Your task to perform on an android device: check battery use Image 0: 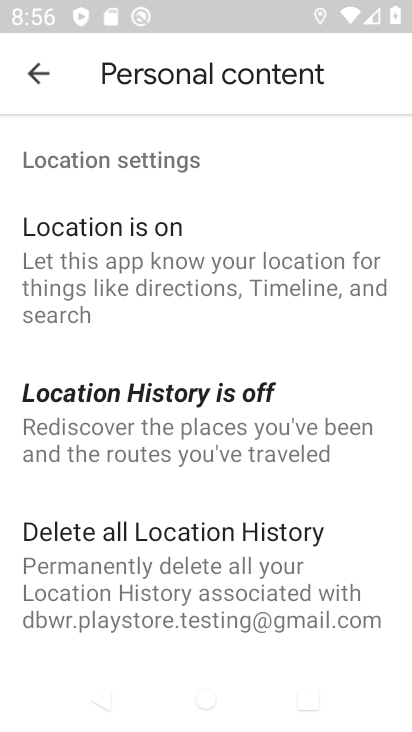
Step 0: press home button
Your task to perform on an android device: check battery use Image 1: 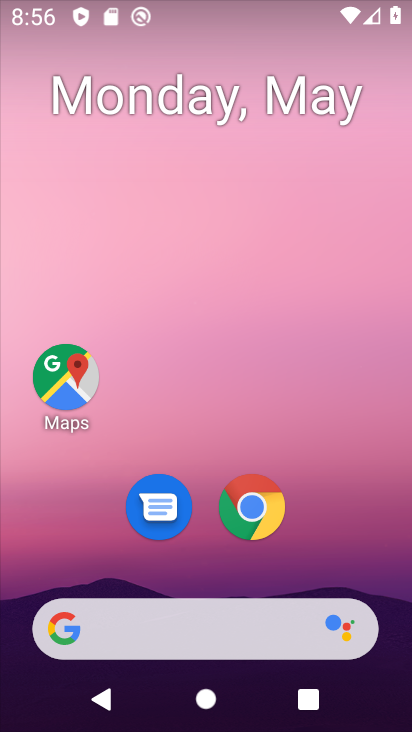
Step 1: drag from (226, 581) to (219, 2)
Your task to perform on an android device: check battery use Image 2: 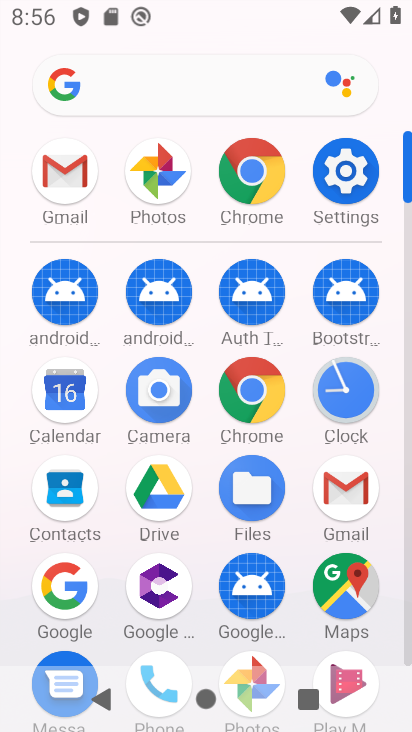
Step 2: click (343, 193)
Your task to perform on an android device: check battery use Image 3: 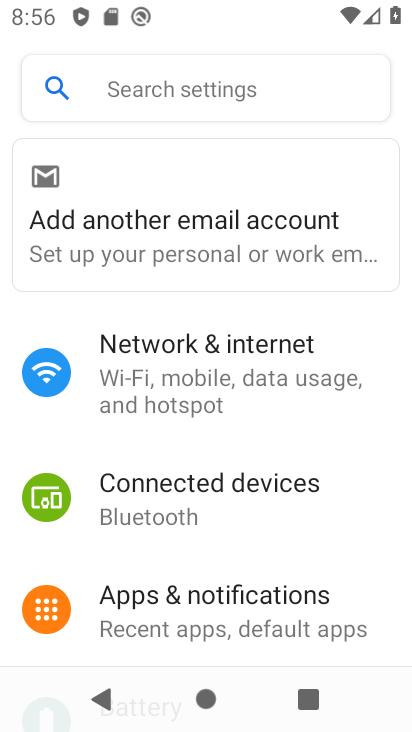
Step 3: drag from (218, 537) to (337, 111)
Your task to perform on an android device: check battery use Image 4: 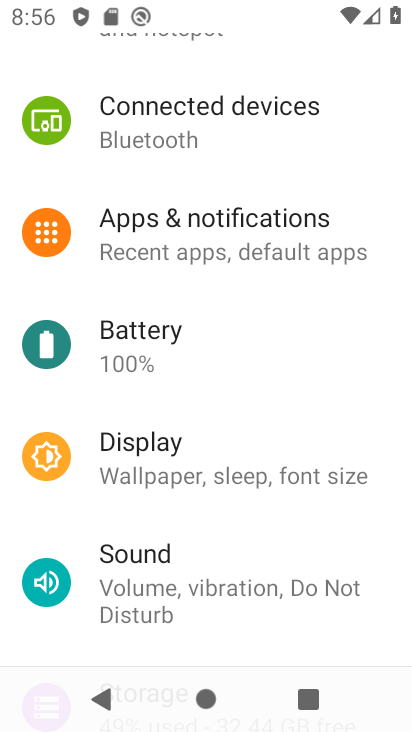
Step 4: click (155, 349)
Your task to perform on an android device: check battery use Image 5: 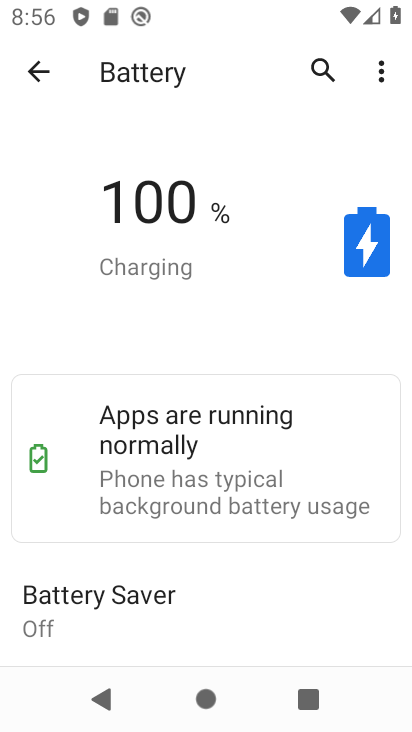
Step 5: click (379, 78)
Your task to perform on an android device: check battery use Image 6: 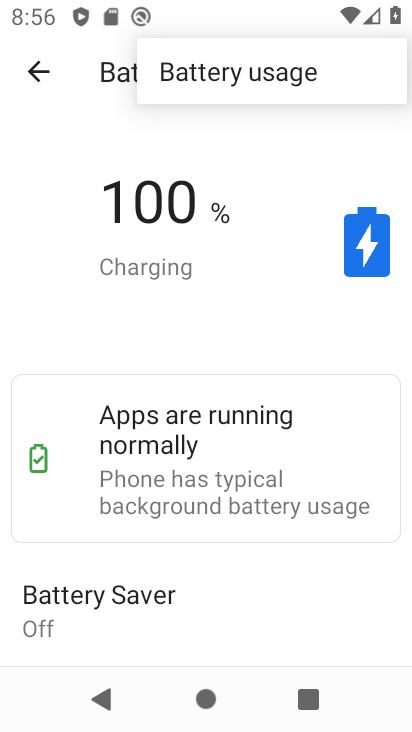
Step 6: click (307, 75)
Your task to perform on an android device: check battery use Image 7: 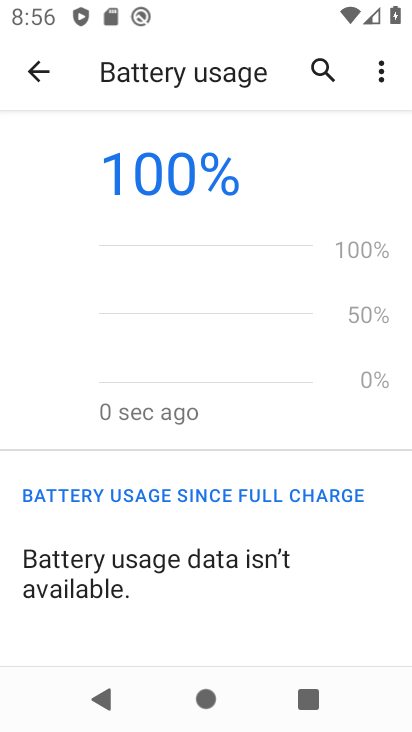
Step 7: task complete